Your task to perform on an android device: toggle priority inbox in the gmail app Image 0: 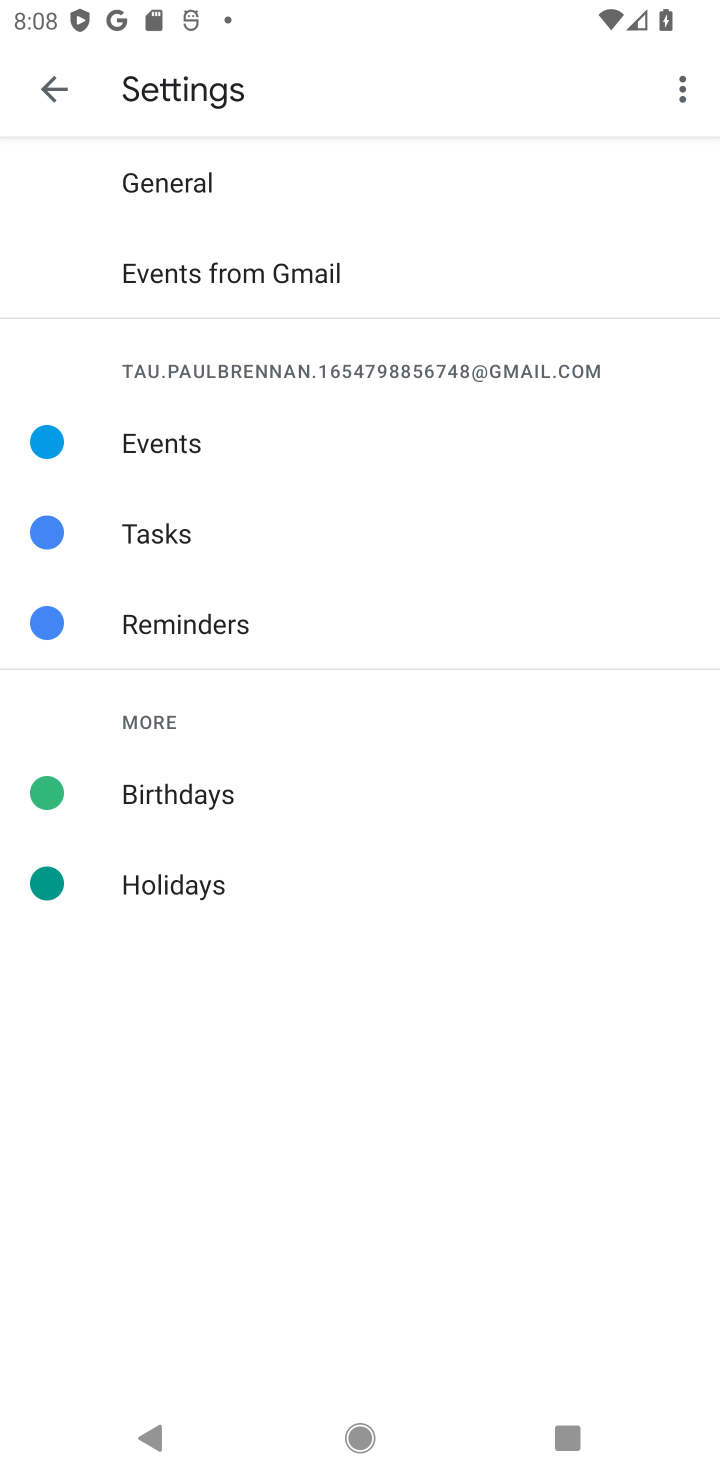
Step 0: press home button
Your task to perform on an android device: toggle priority inbox in the gmail app Image 1: 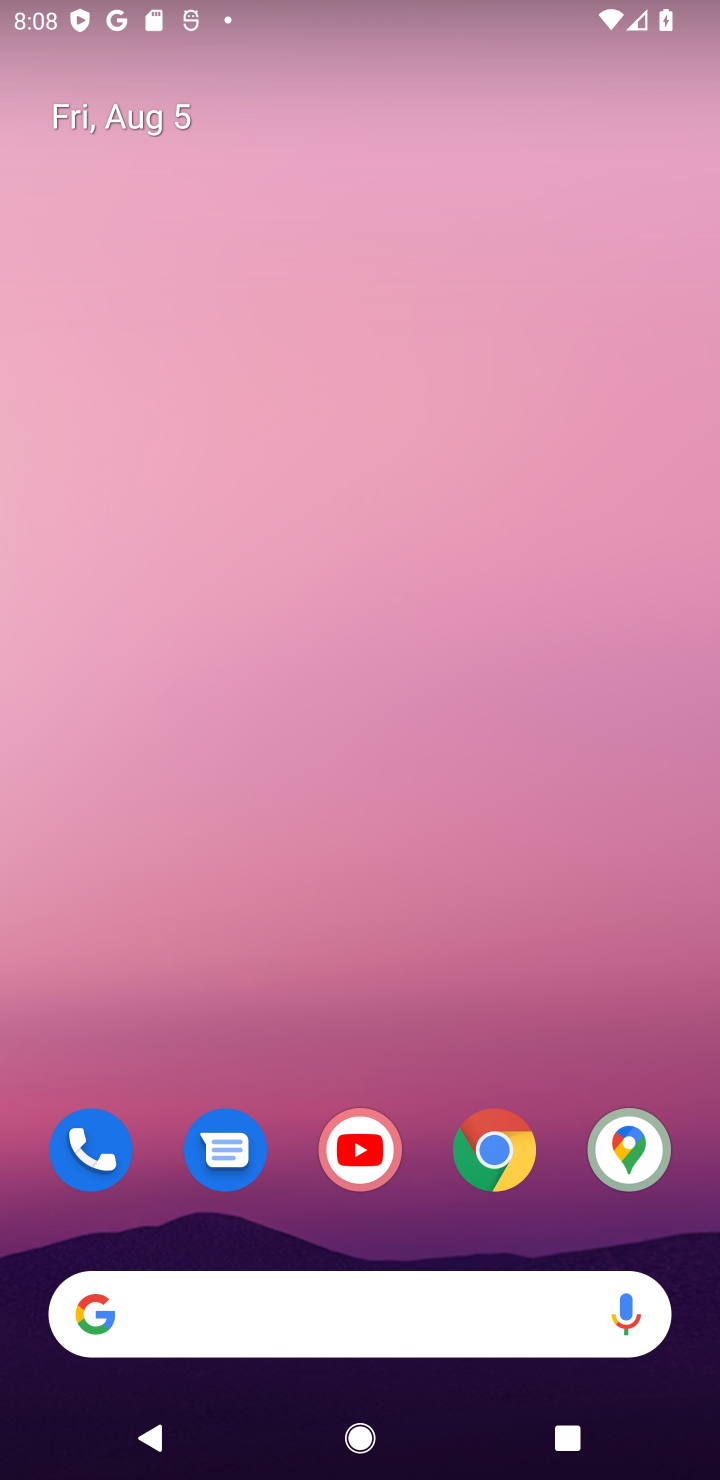
Step 1: drag from (302, 934) to (367, 138)
Your task to perform on an android device: toggle priority inbox in the gmail app Image 2: 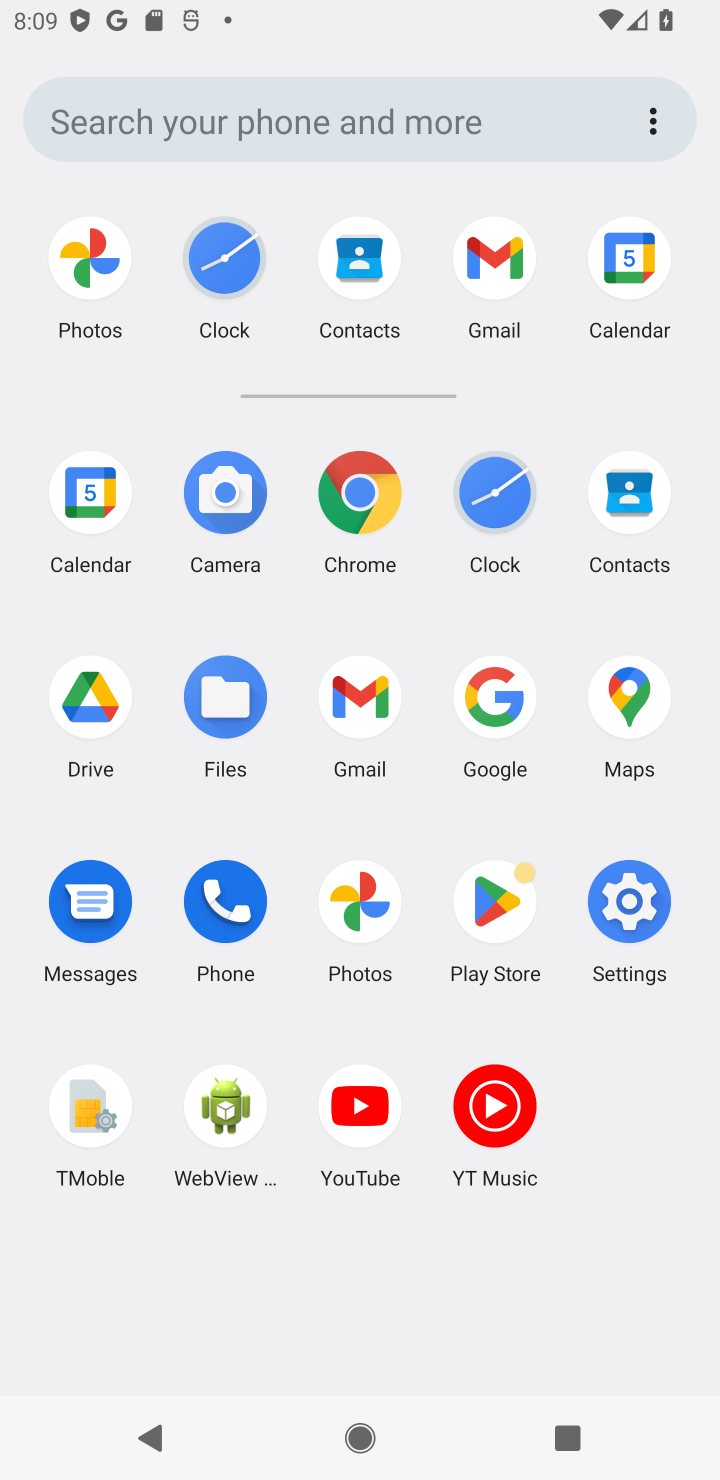
Step 2: click (350, 705)
Your task to perform on an android device: toggle priority inbox in the gmail app Image 3: 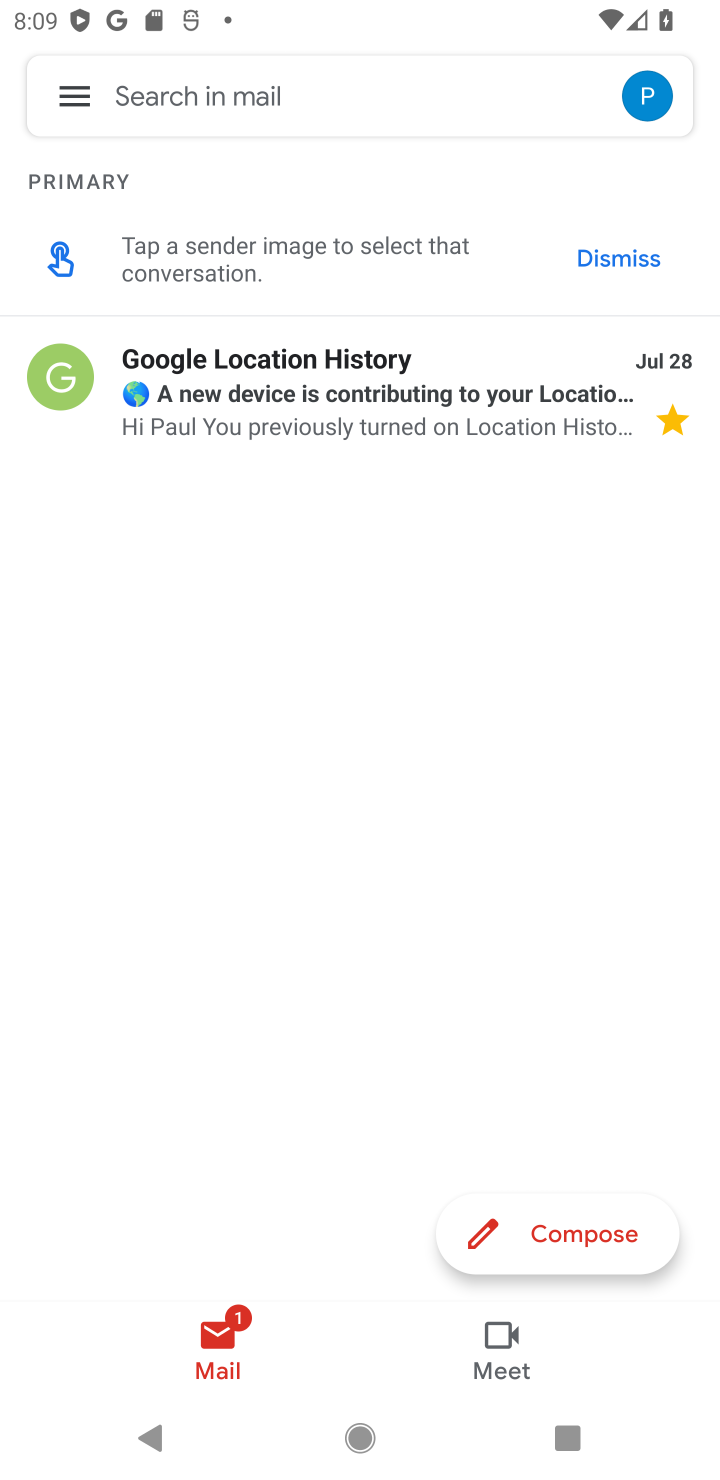
Step 3: click (75, 78)
Your task to perform on an android device: toggle priority inbox in the gmail app Image 4: 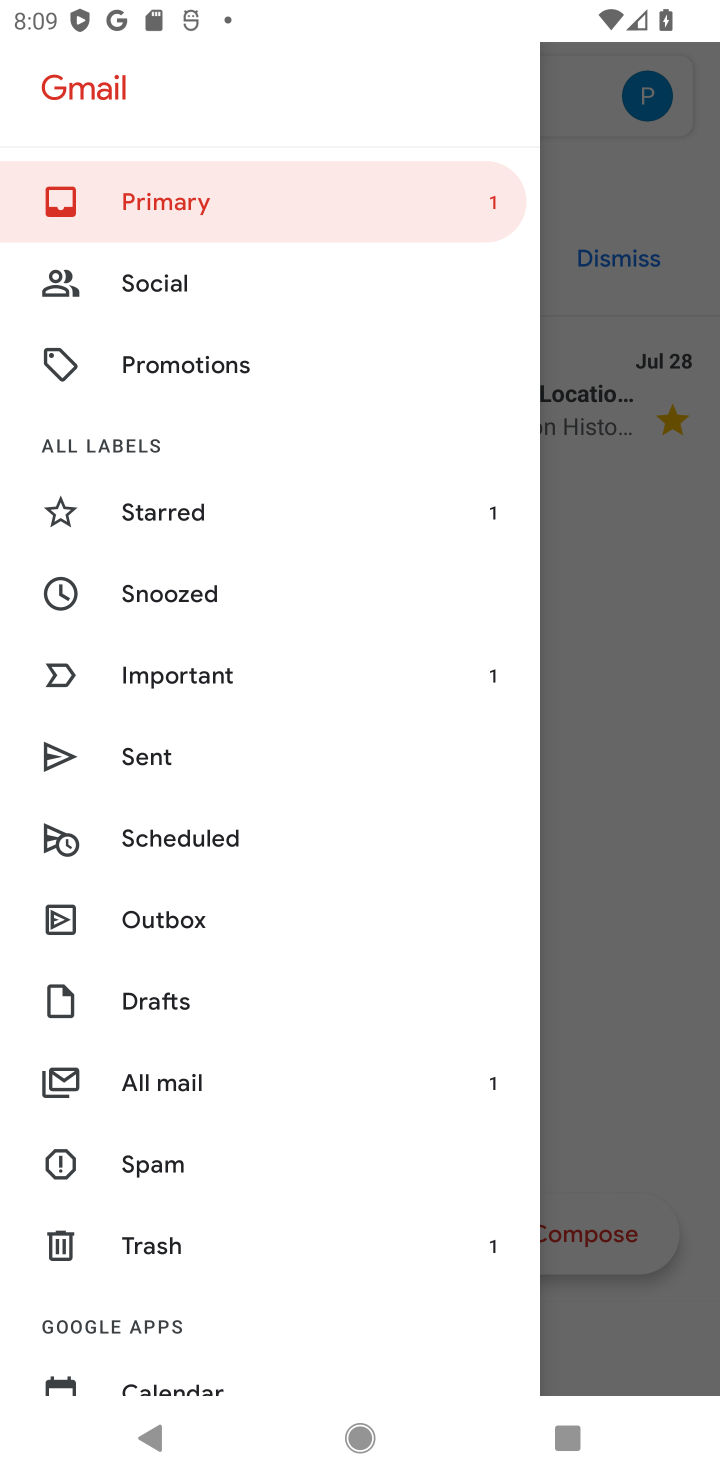
Step 4: drag from (371, 970) to (376, 664)
Your task to perform on an android device: toggle priority inbox in the gmail app Image 5: 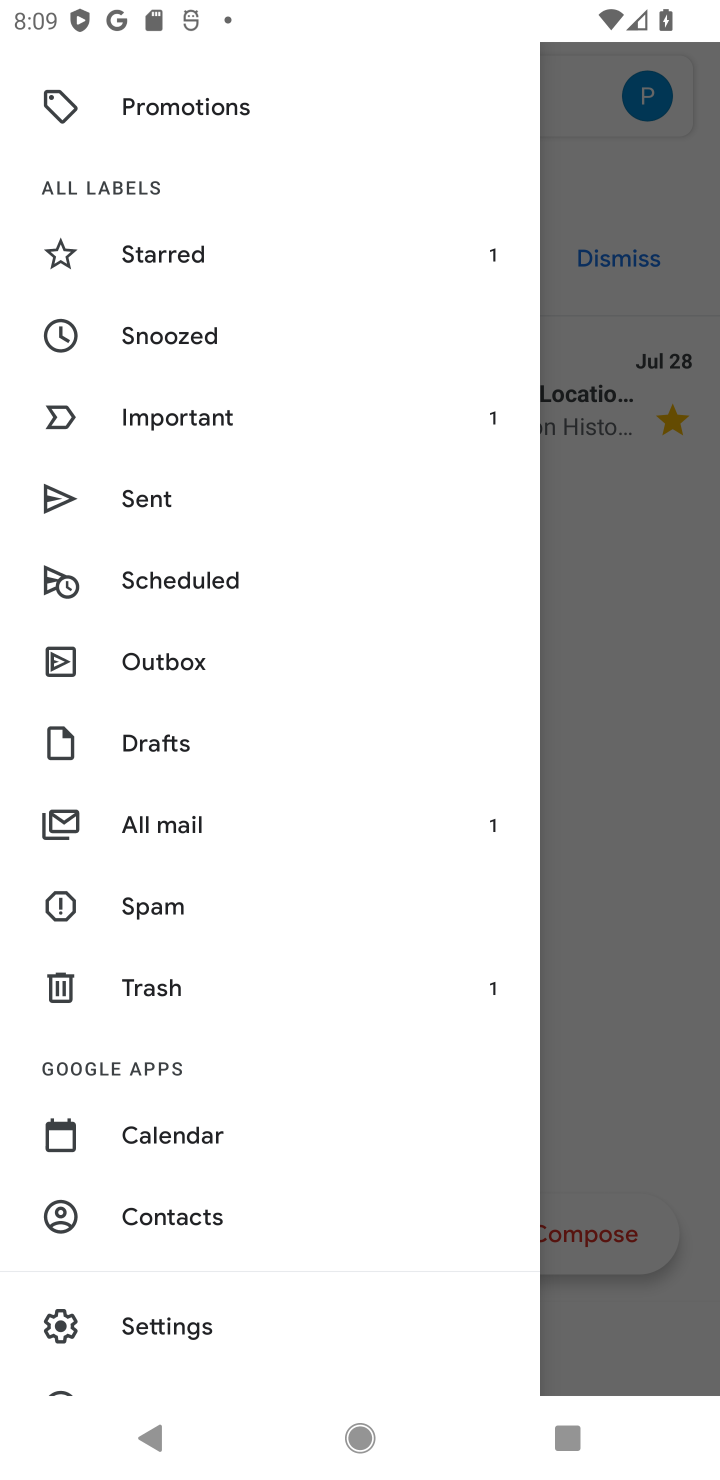
Step 5: drag from (372, 1020) to (376, 712)
Your task to perform on an android device: toggle priority inbox in the gmail app Image 6: 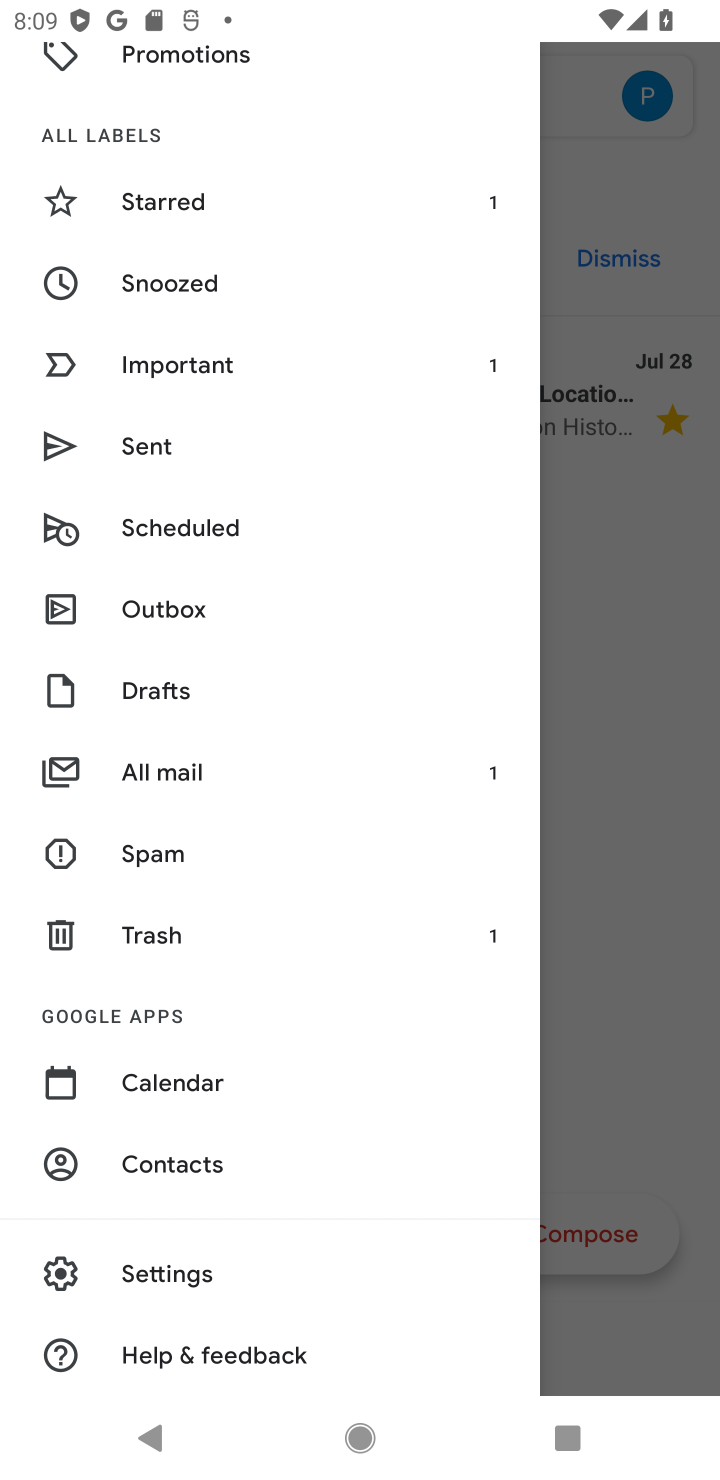
Step 6: click (211, 1274)
Your task to perform on an android device: toggle priority inbox in the gmail app Image 7: 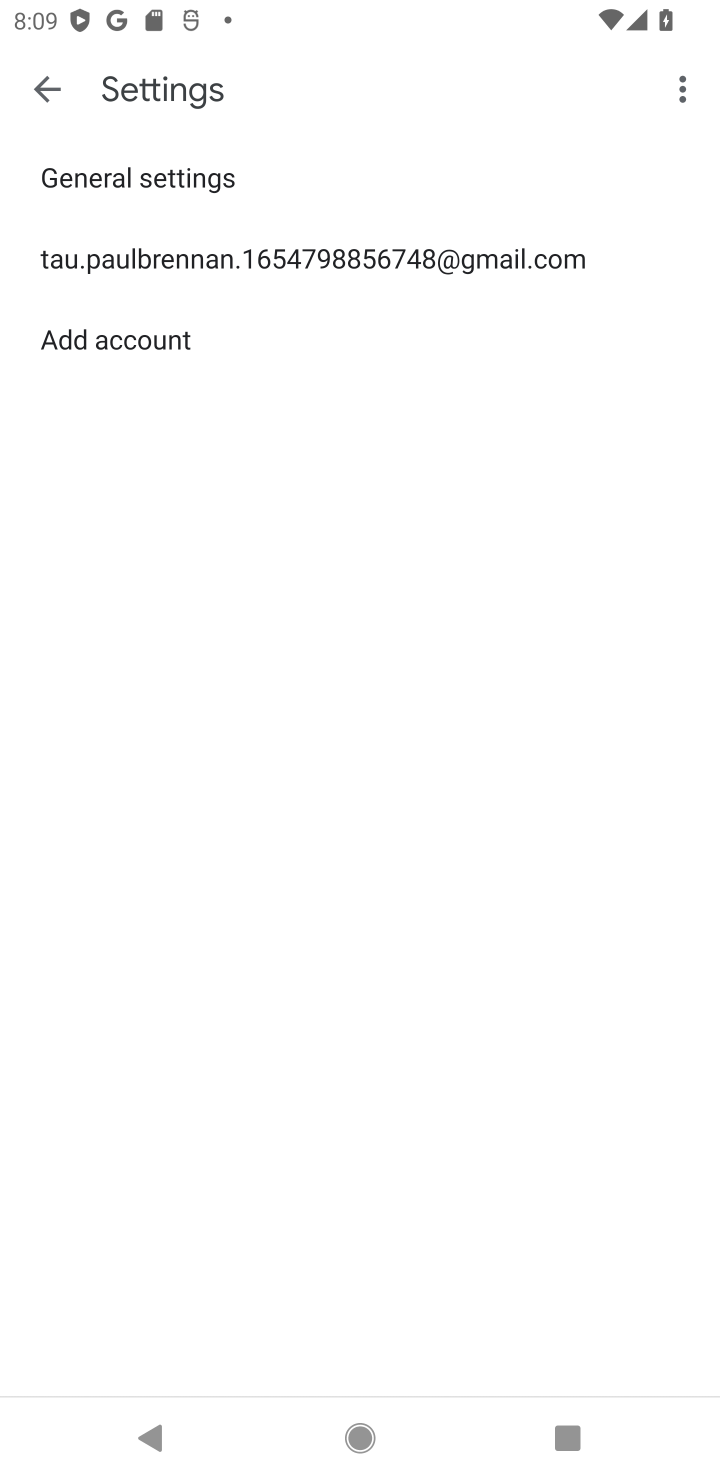
Step 7: click (348, 243)
Your task to perform on an android device: toggle priority inbox in the gmail app Image 8: 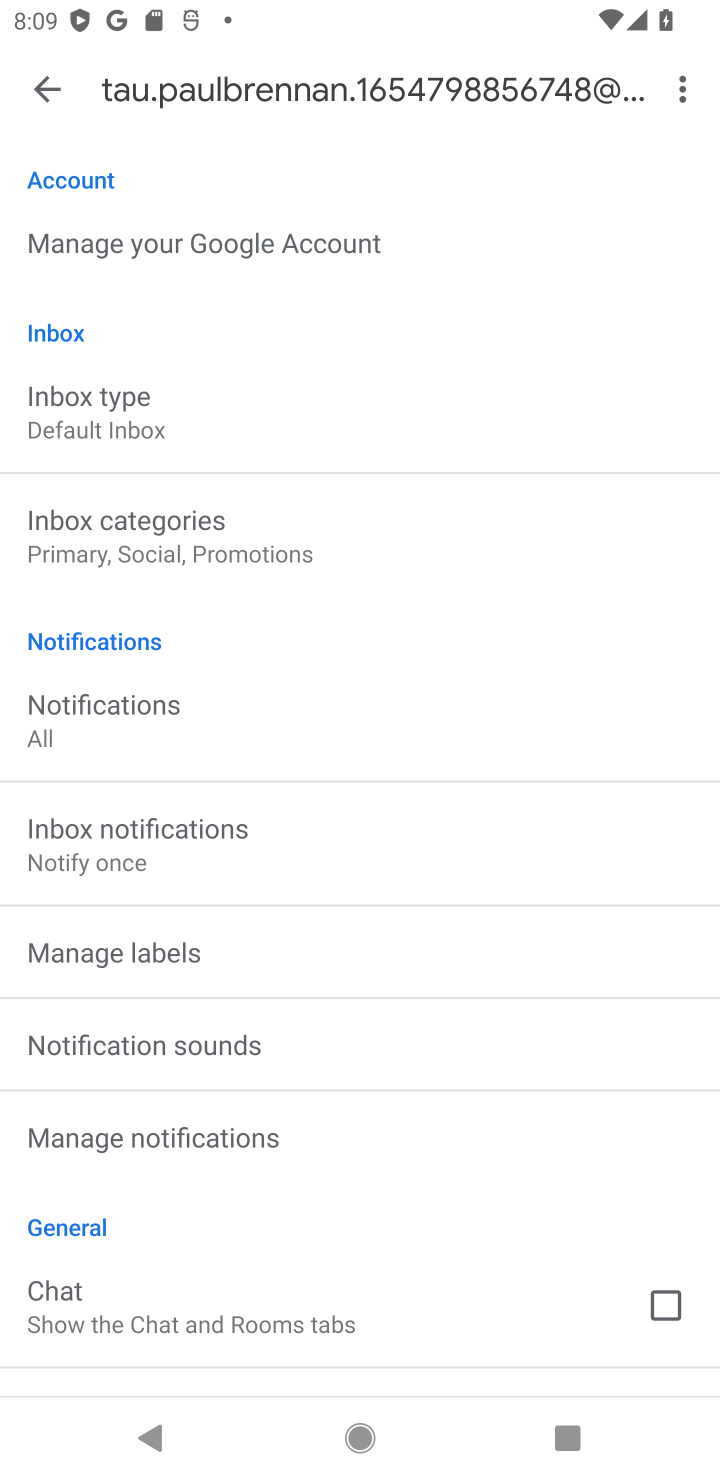
Step 8: click (233, 403)
Your task to perform on an android device: toggle priority inbox in the gmail app Image 9: 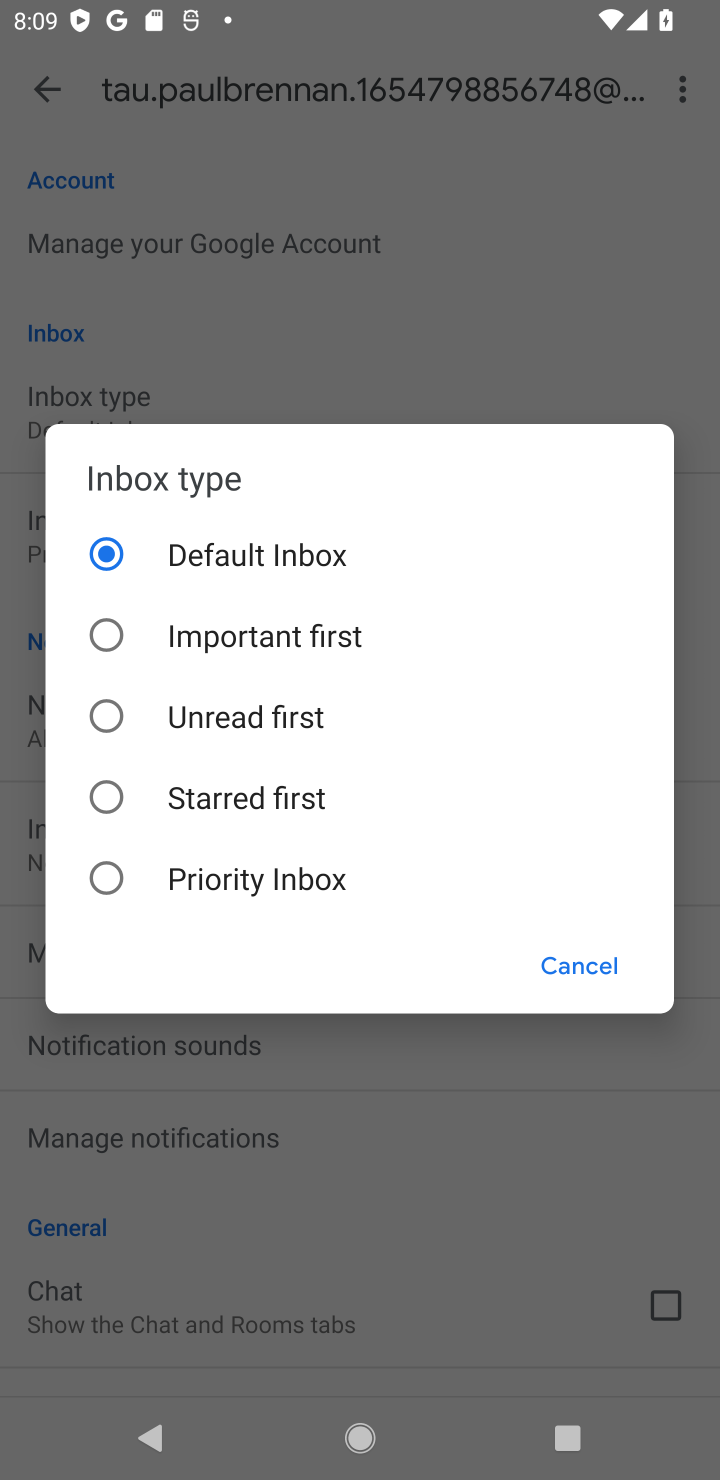
Step 9: click (259, 877)
Your task to perform on an android device: toggle priority inbox in the gmail app Image 10: 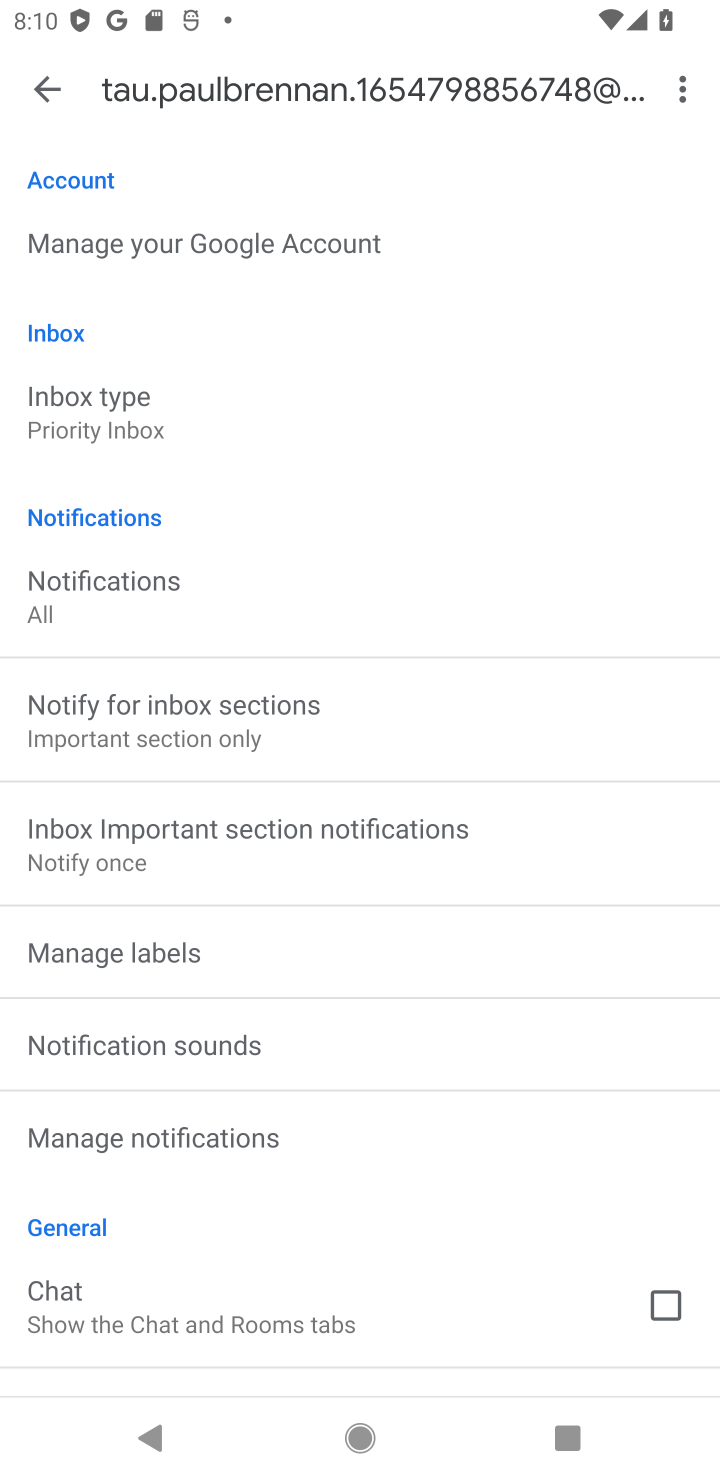
Step 10: task complete